Your task to perform on an android device: What's the weather? Image 0: 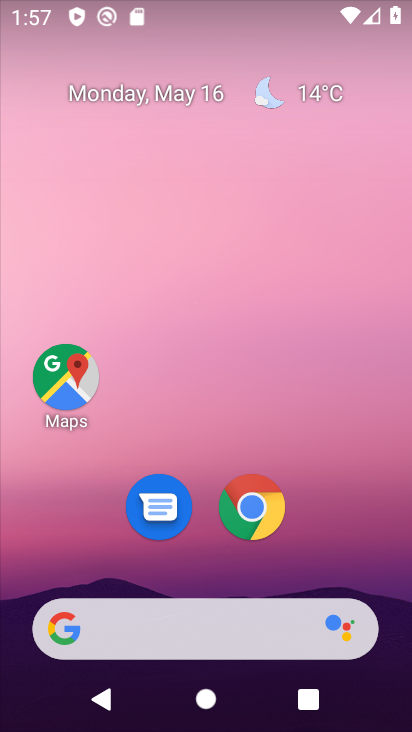
Step 0: drag from (218, 590) to (216, 228)
Your task to perform on an android device: What's the weather? Image 1: 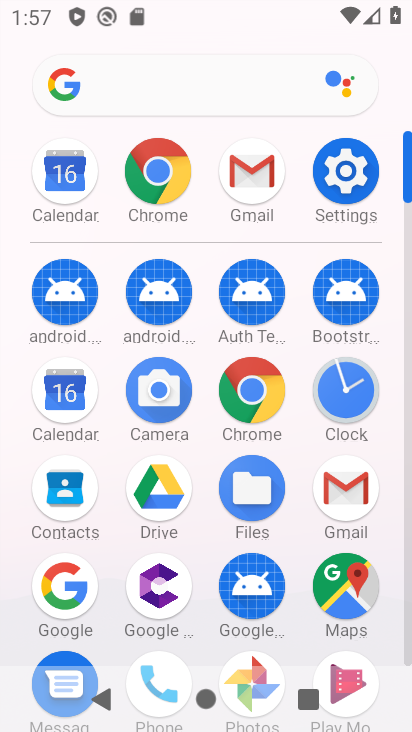
Step 1: click (63, 597)
Your task to perform on an android device: What's the weather? Image 2: 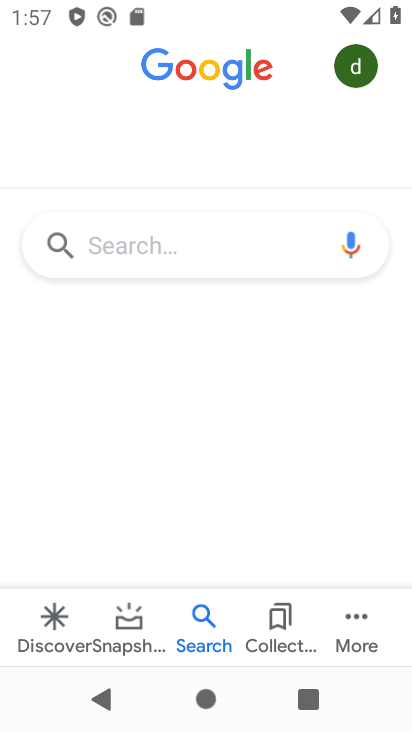
Step 2: click (35, 635)
Your task to perform on an android device: What's the weather? Image 3: 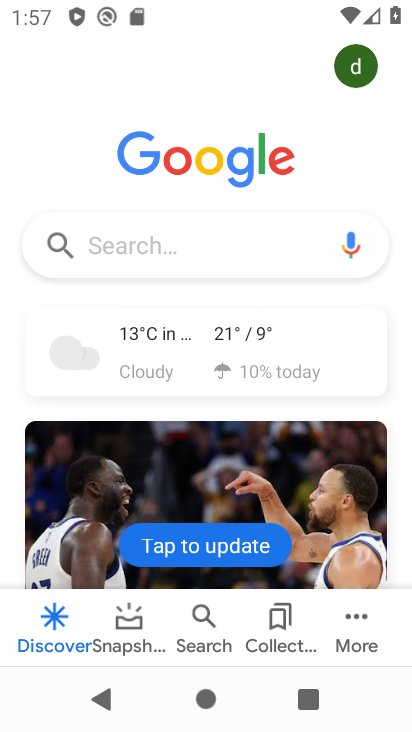
Step 3: click (199, 324)
Your task to perform on an android device: What's the weather? Image 4: 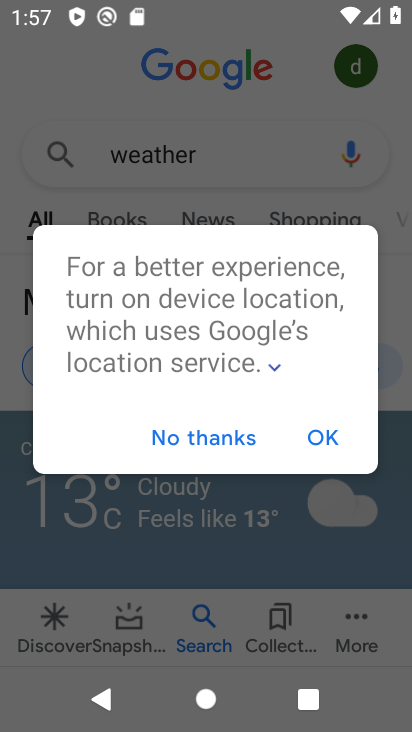
Step 4: click (310, 436)
Your task to perform on an android device: What's the weather? Image 5: 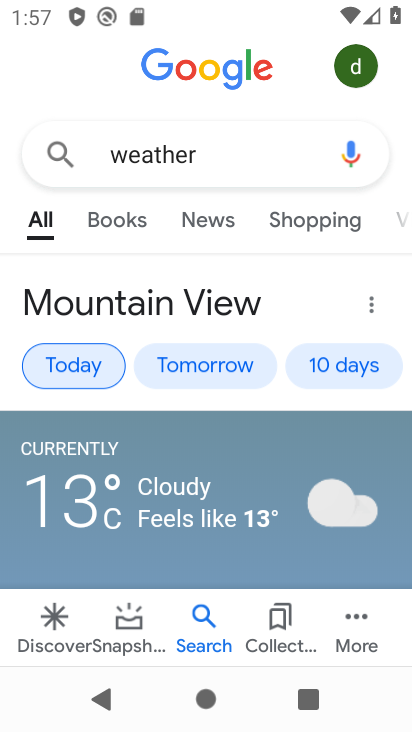
Step 5: click (34, 629)
Your task to perform on an android device: What's the weather? Image 6: 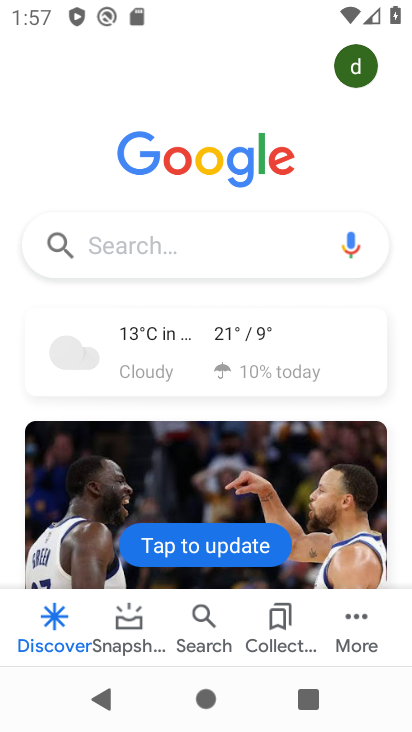
Step 6: task complete